Your task to perform on an android device: Open CNN.com Image 0: 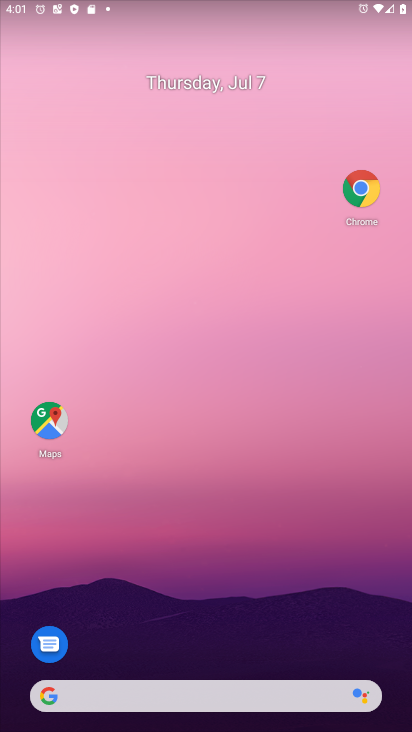
Step 0: click (371, 184)
Your task to perform on an android device: Open CNN.com Image 1: 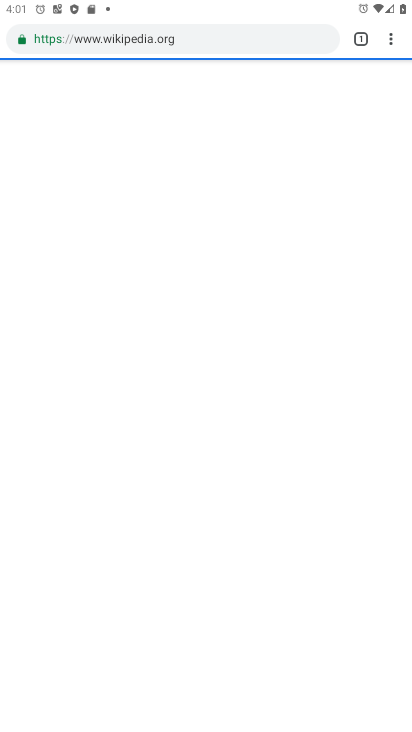
Step 1: click (138, 51)
Your task to perform on an android device: Open CNN.com Image 2: 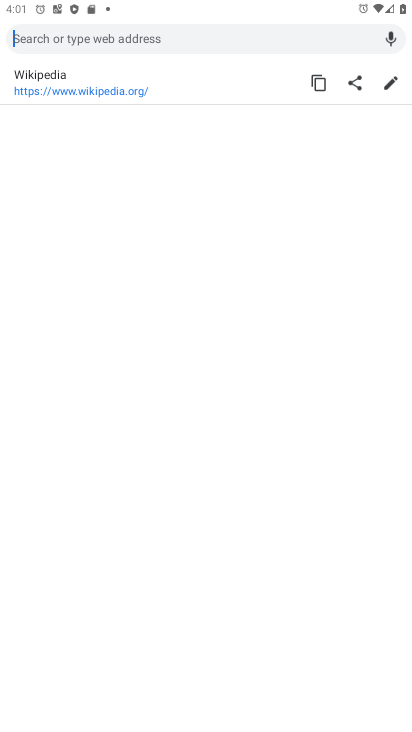
Step 2: click (138, 41)
Your task to perform on an android device: Open CNN.com Image 3: 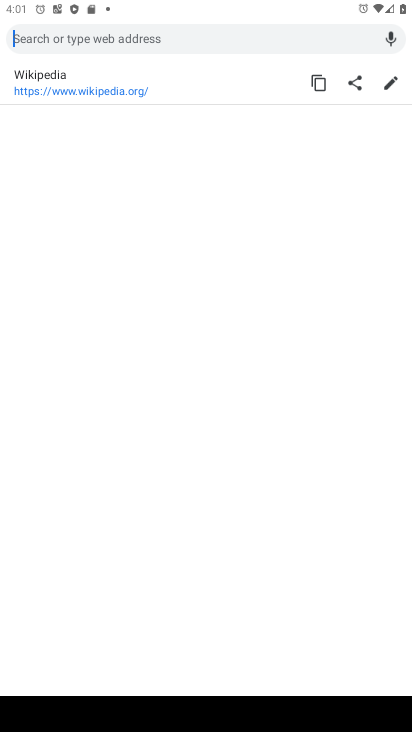
Step 3: click (138, 37)
Your task to perform on an android device: Open CNN.com Image 4: 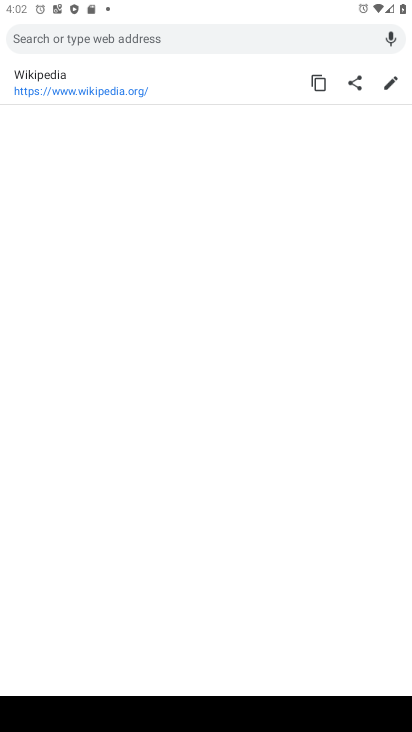
Step 4: type "CNN.com"
Your task to perform on an android device: Open CNN.com Image 5: 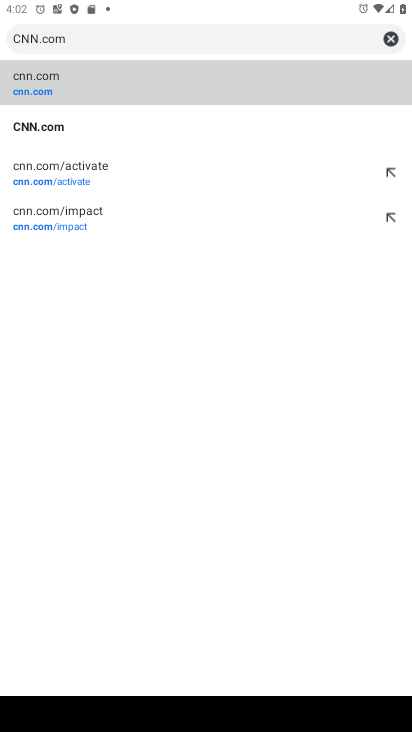
Step 5: click (71, 77)
Your task to perform on an android device: Open CNN.com Image 6: 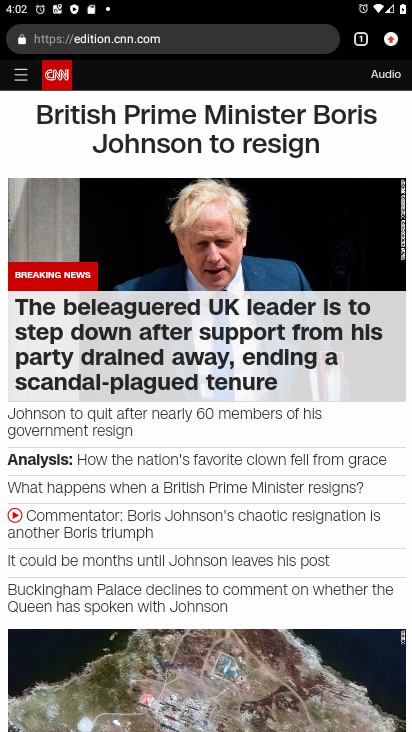
Step 6: task complete